Your task to perform on an android device: What's on the menu at Papa John's? Image 0: 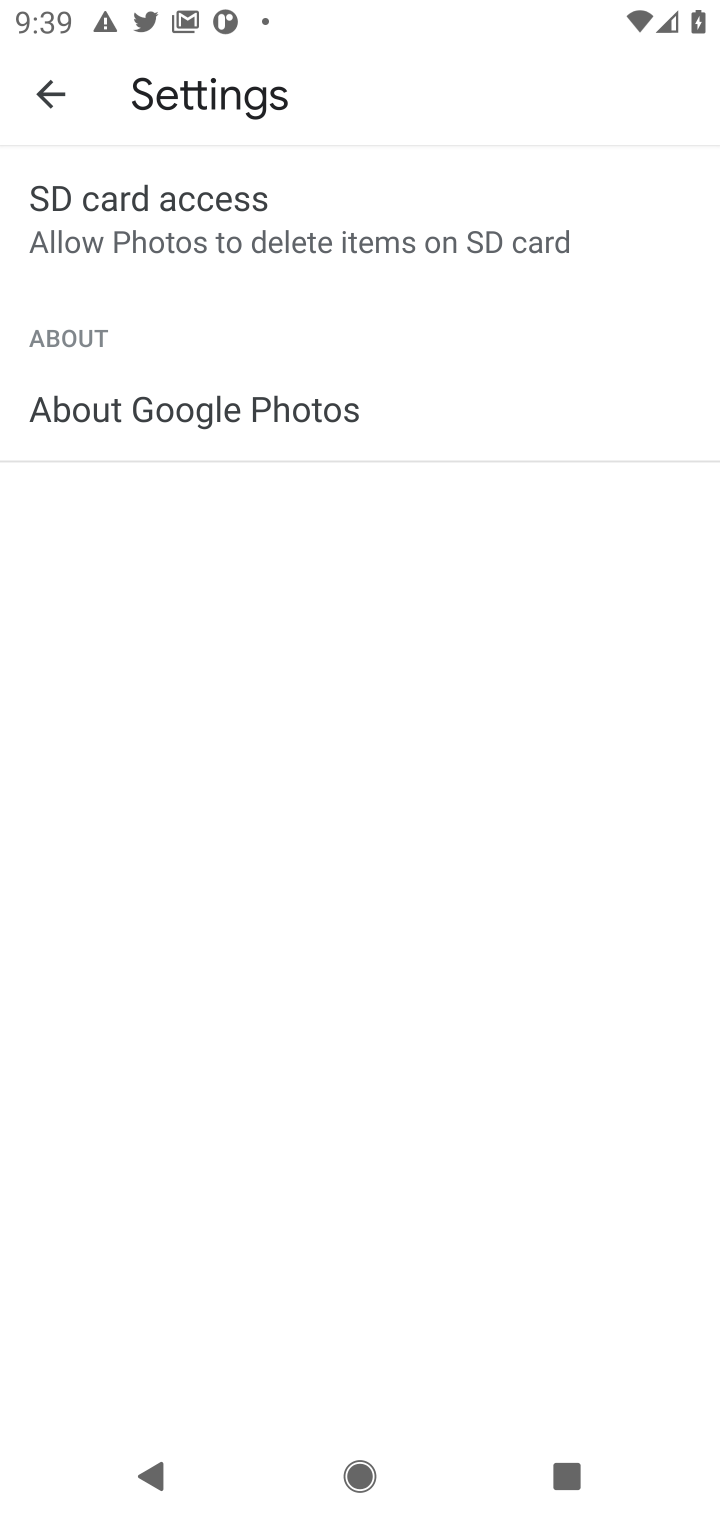
Step 0: press home button
Your task to perform on an android device: What's on the menu at Papa John's? Image 1: 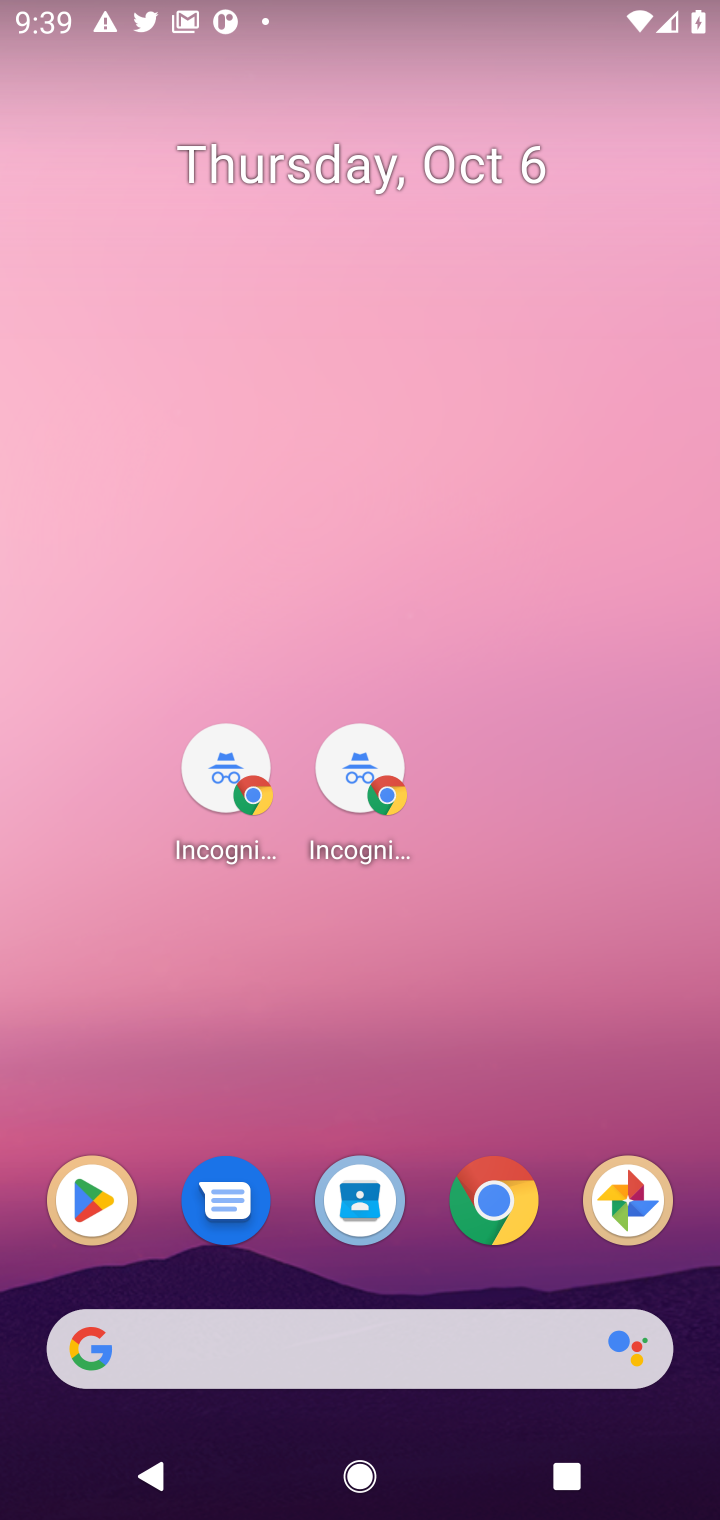
Step 1: click (513, 1201)
Your task to perform on an android device: What's on the menu at Papa John's? Image 2: 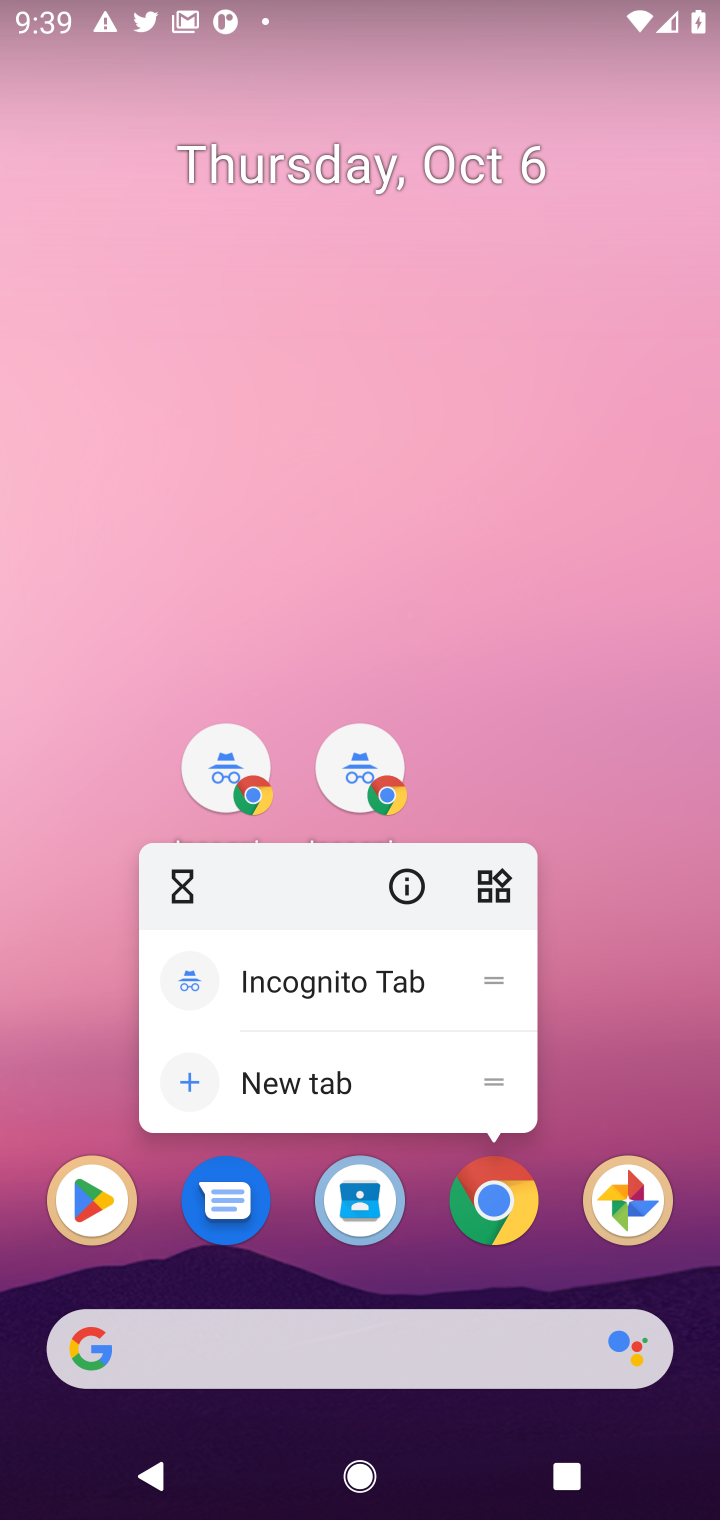
Step 2: press back button
Your task to perform on an android device: What's on the menu at Papa John's? Image 3: 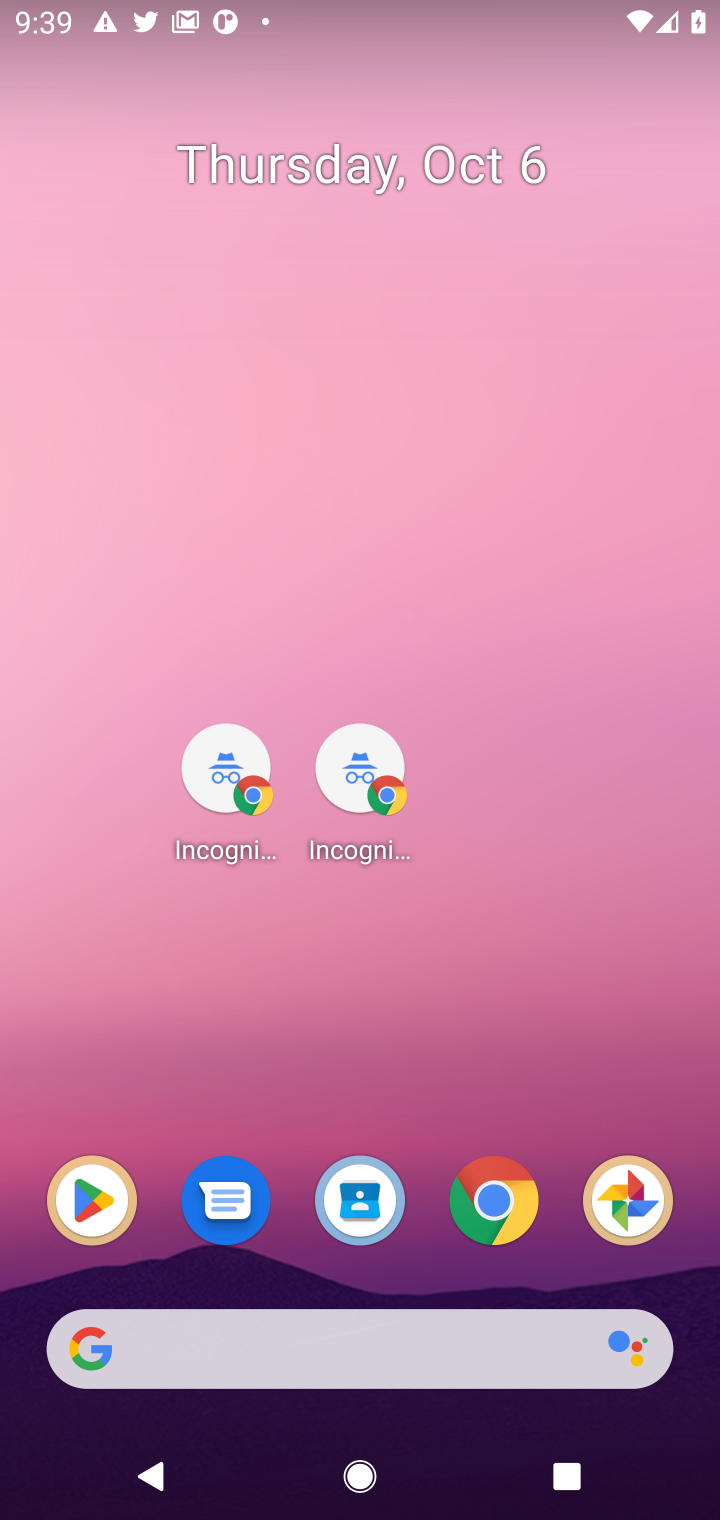
Step 3: click (520, 1190)
Your task to perform on an android device: What's on the menu at Papa John's? Image 4: 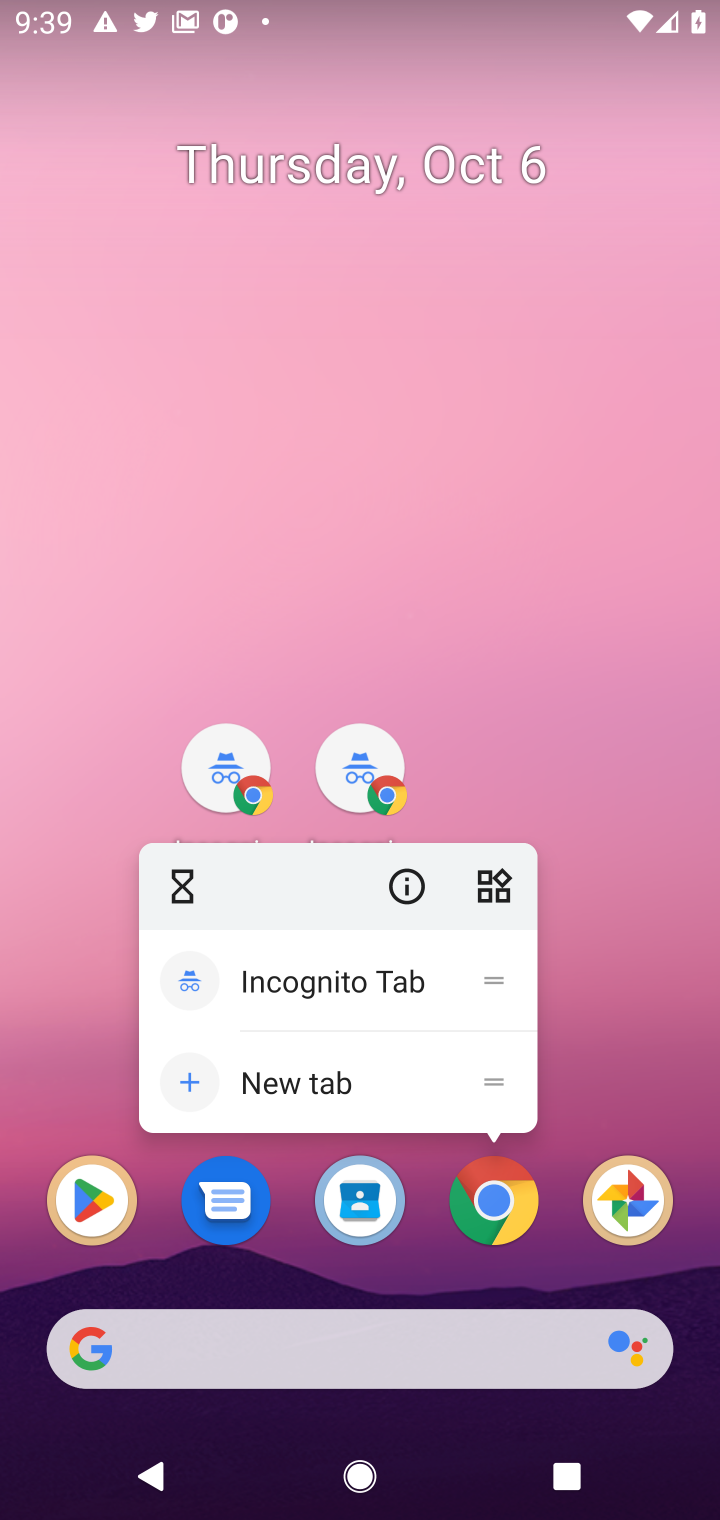
Step 4: press back button
Your task to perform on an android device: What's on the menu at Papa John's? Image 5: 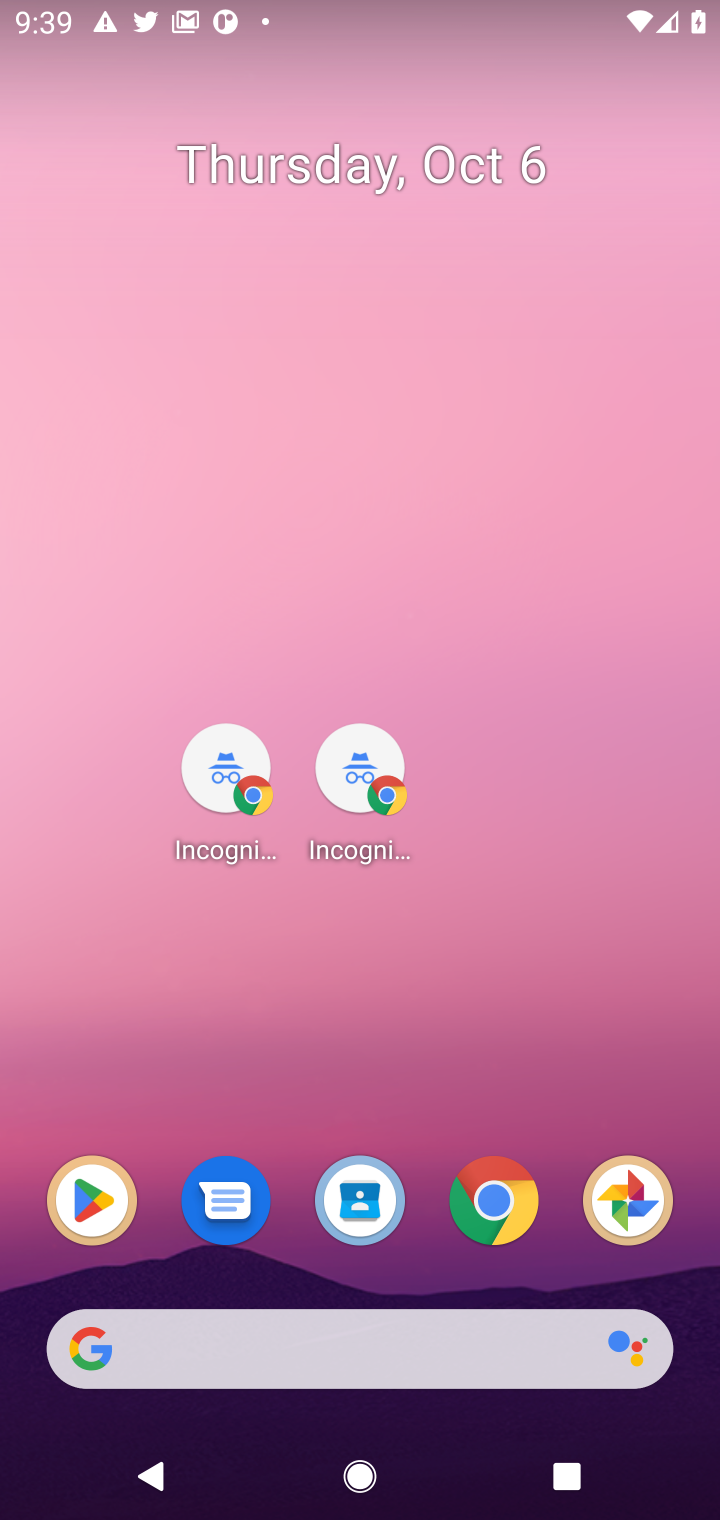
Step 5: press back button
Your task to perform on an android device: What's on the menu at Papa John's? Image 6: 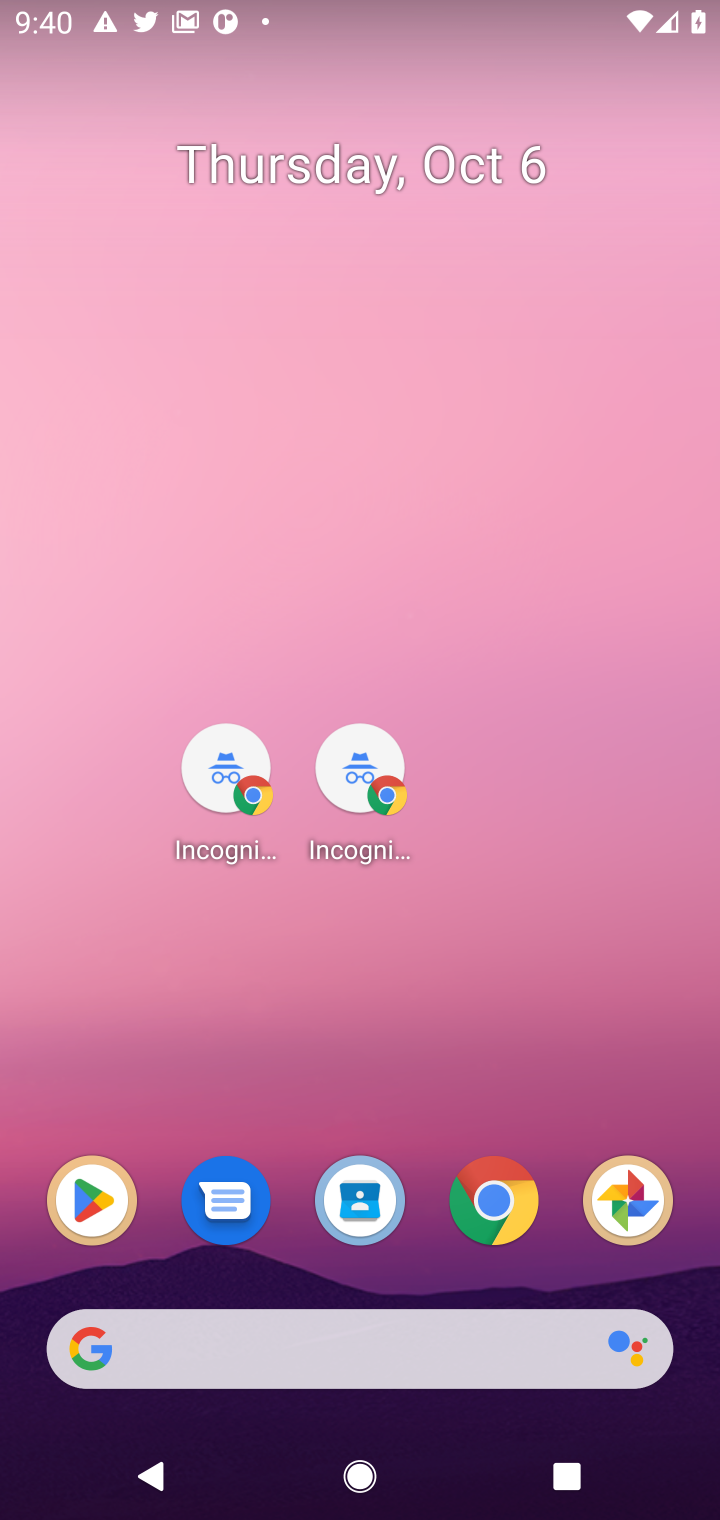
Step 6: press back button
Your task to perform on an android device: What's on the menu at Papa John's? Image 7: 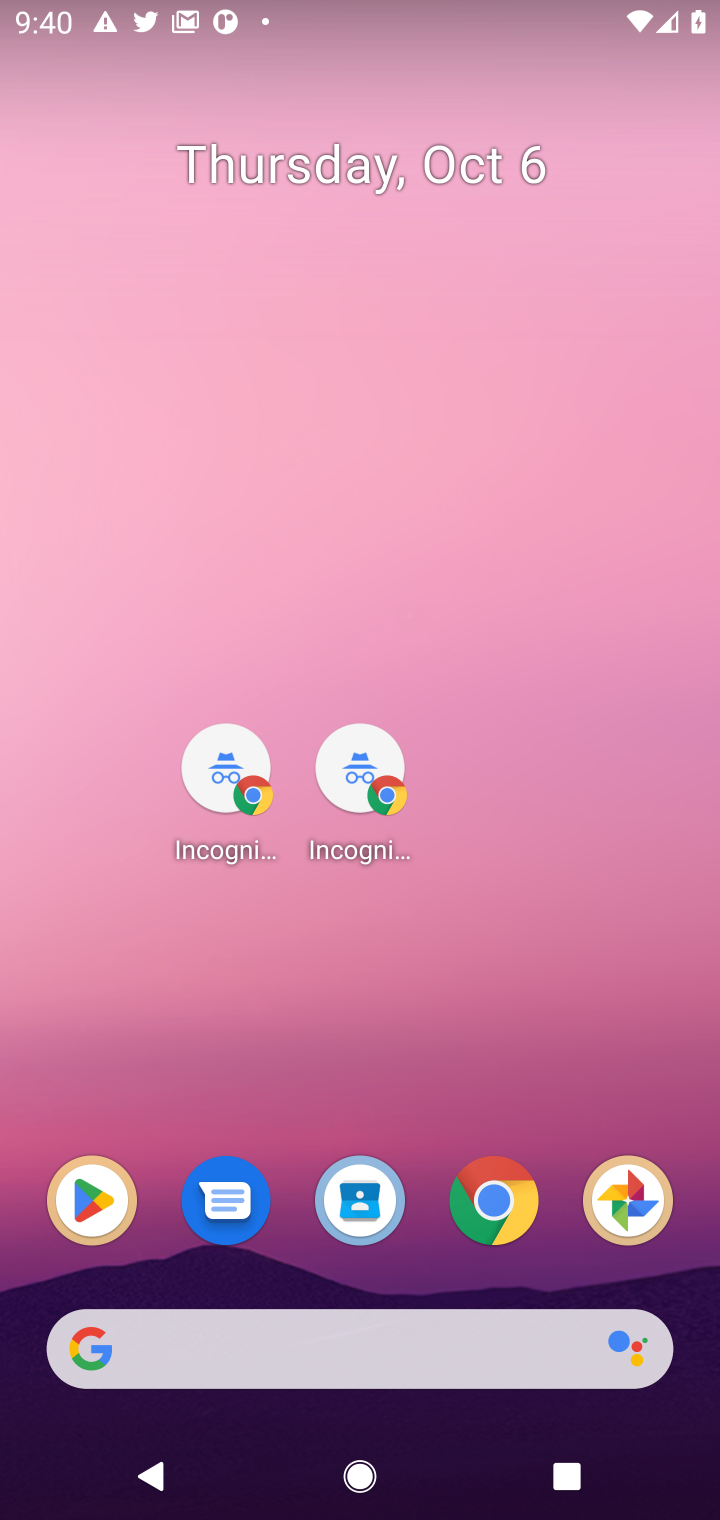
Step 7: click (497, 1193)
Your task to perform on an android device: What's on the menu at Papa John's? Image 8: 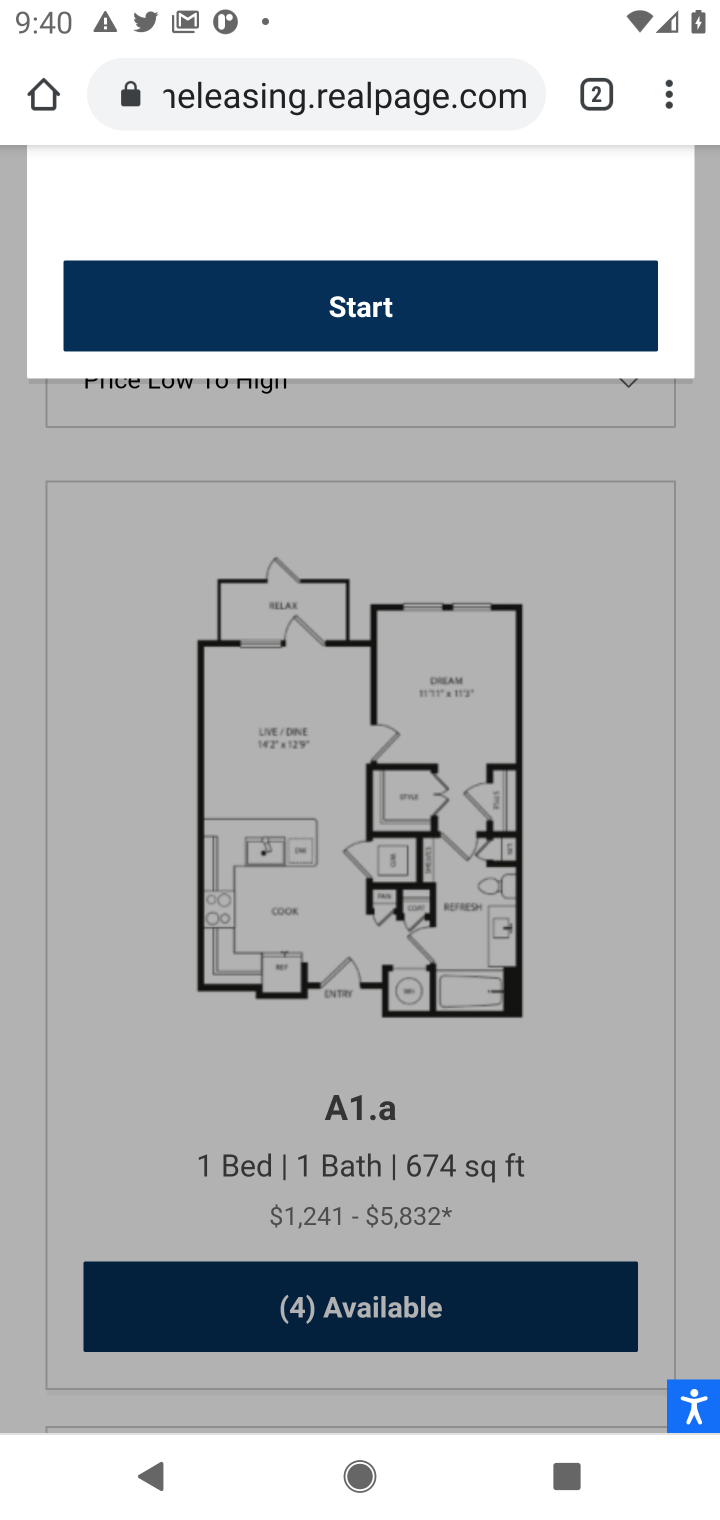
Step 8: click (425, 101)
Your task to perform on an android device: What's on the menu at Papa John's? Image 9: 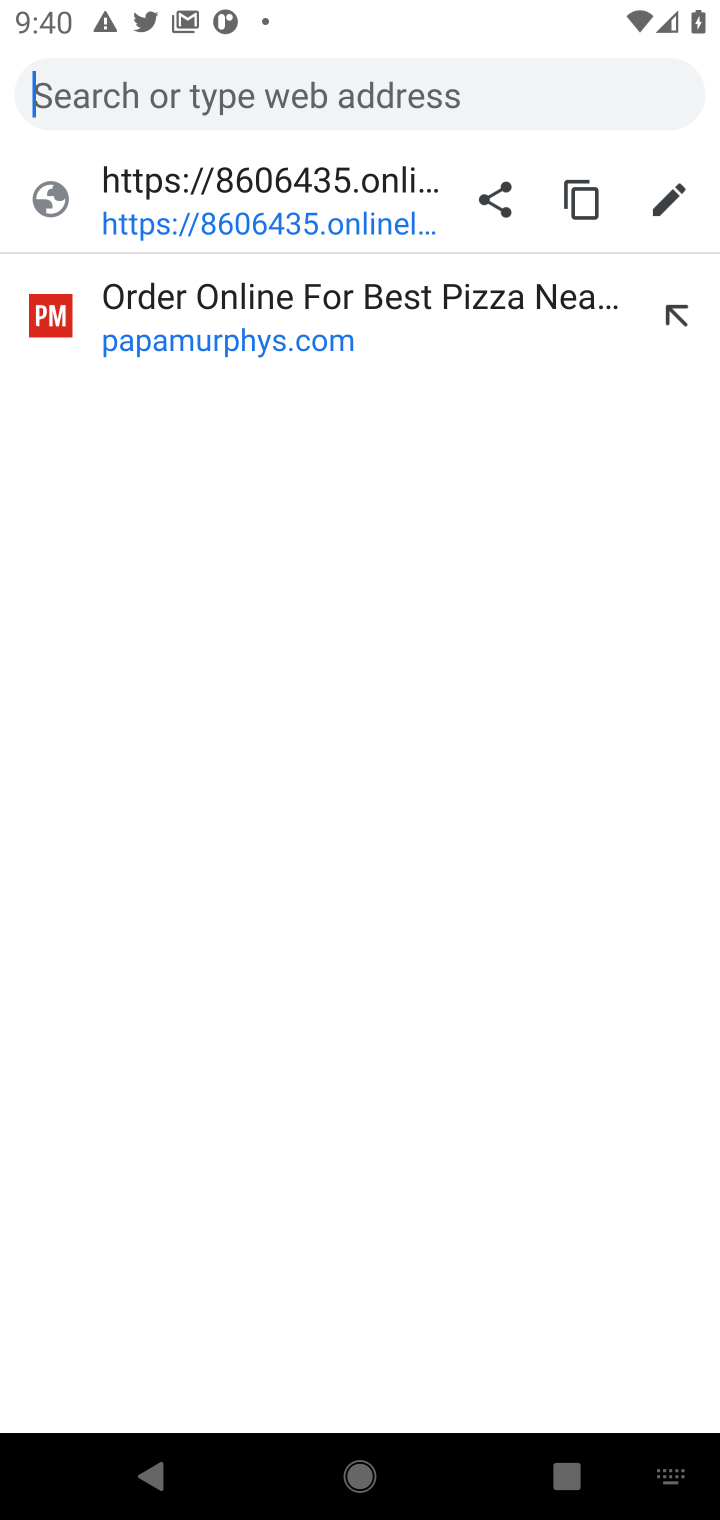
Step 9: type "papa john's"
Your task to perform on an android device: What's on the menu at Papa John's? Image 10: 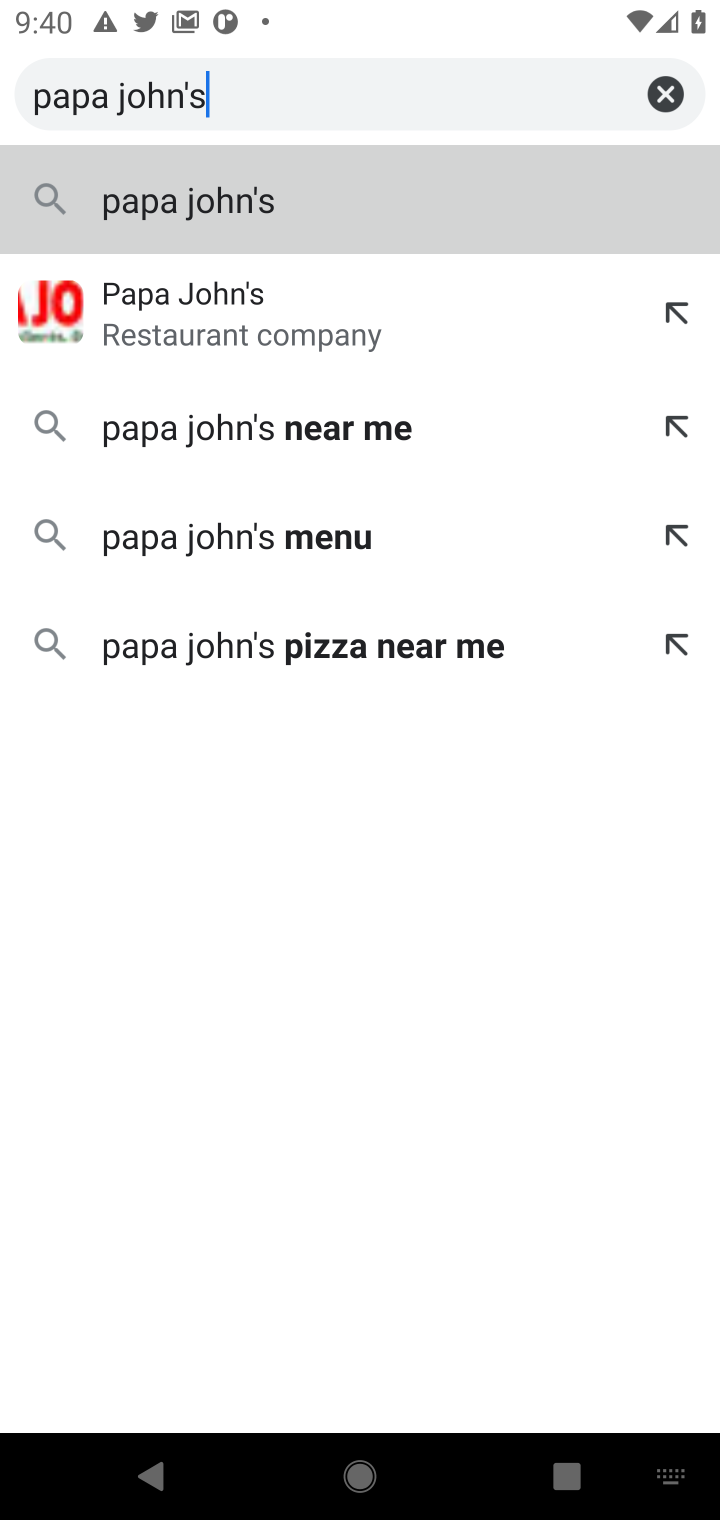
Step 10: click (158, 285)
Your task to perform on an android device: What's on the menu at Papa John's? Image 11: 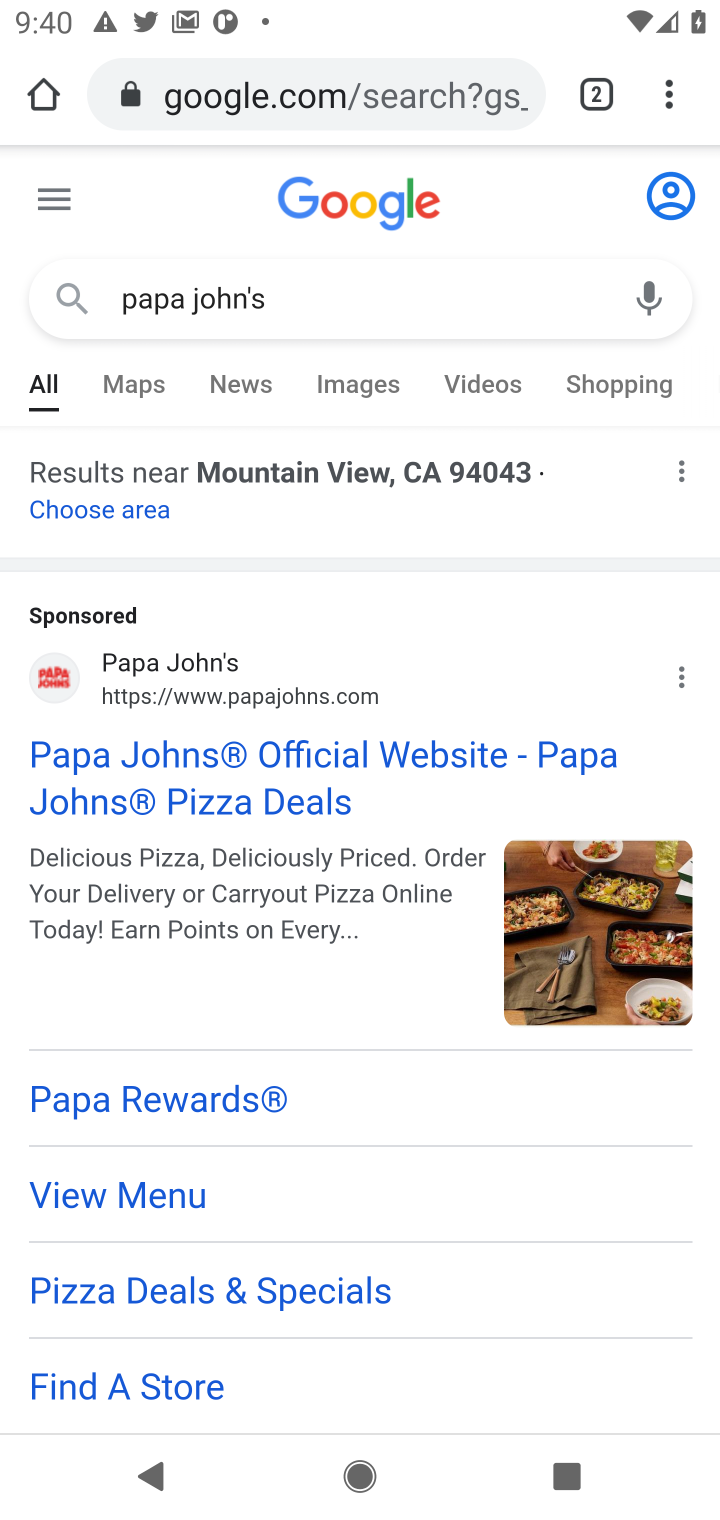
Step 11: click (92, 1191)
Your task to perform on an android device: What's on the menu at Papa John's? Image 12: 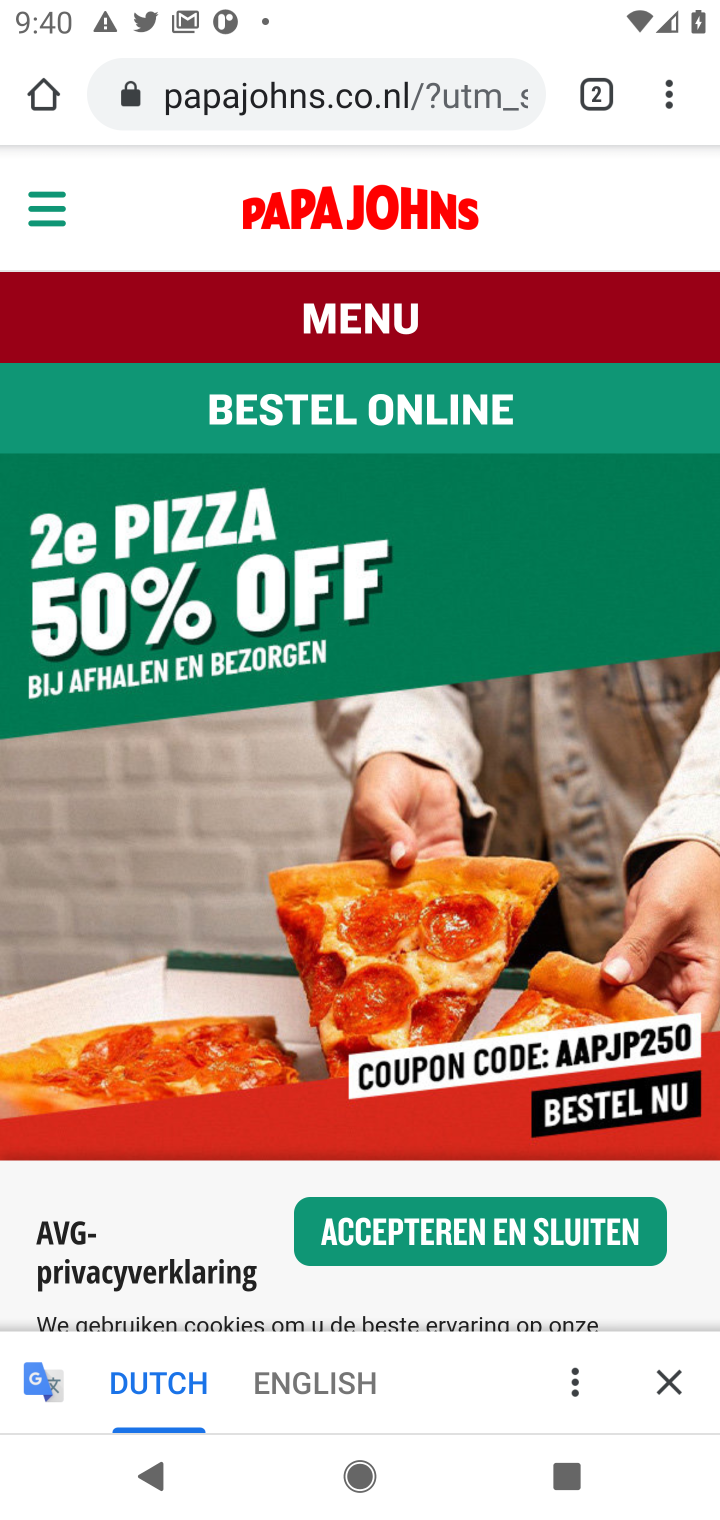
Step 12: task complete